Your task to perform on an android device: toggle pop-ups in chrome Image 0: 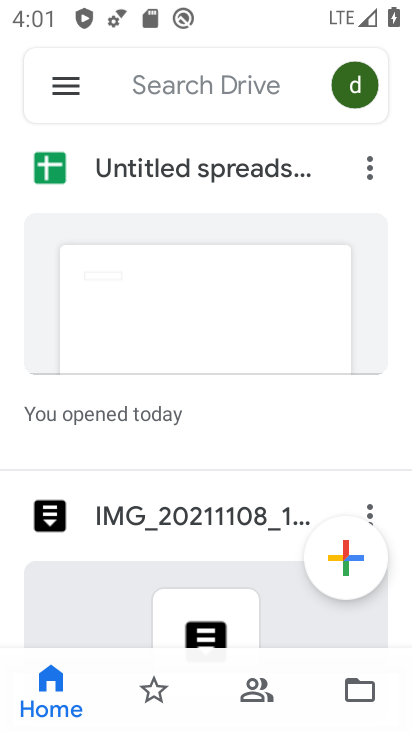
Step 0: press back button
Your task to perform on an android device: toggle pop-ups in chrome Image 1: 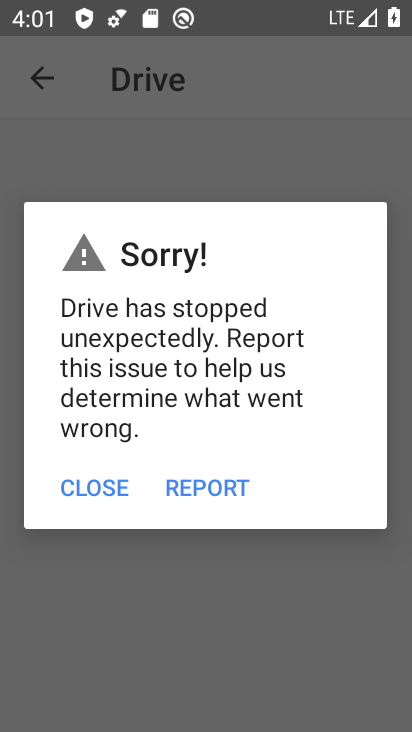
Step 1: press home button
Your task to perform on an android device: toggle pop-ups in chrome Image 2: 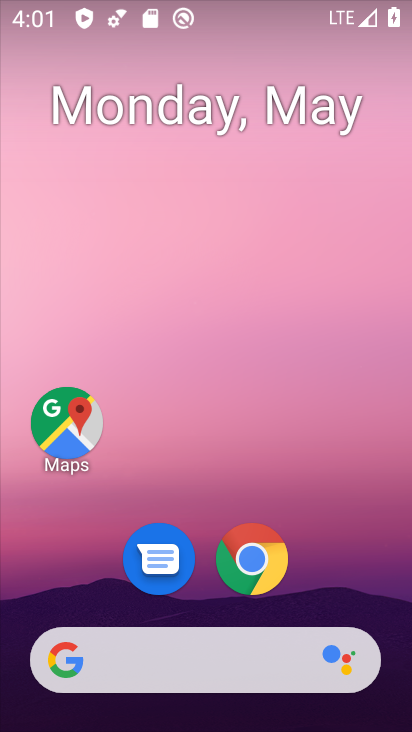
Step 2: drag from (307, 403) to (217, 26)
Your task to perform on an android device: toggle pop-ups in chrome Image 3: 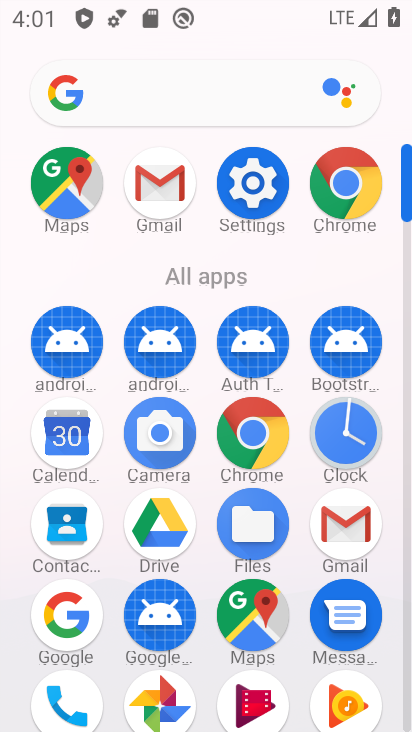
Step 3: drag from (17, 600) to (7, 238)
Your task to perform on an android device: toggle pop-ups in chrome Image 4: 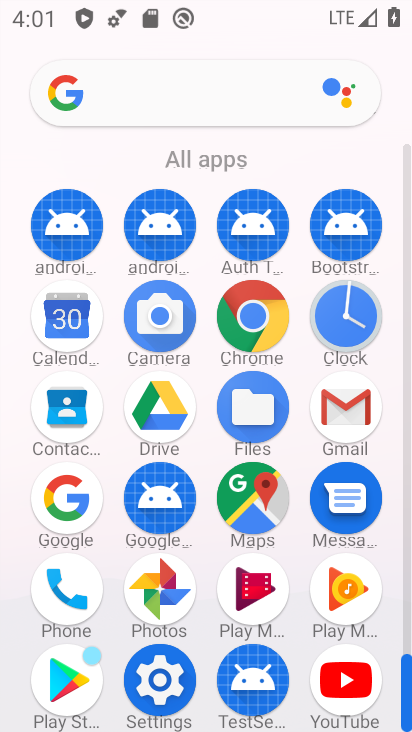
Step 4: click (248, 315)
Your task to perform on an android device: toggle pop-ups in chrome Image 5: 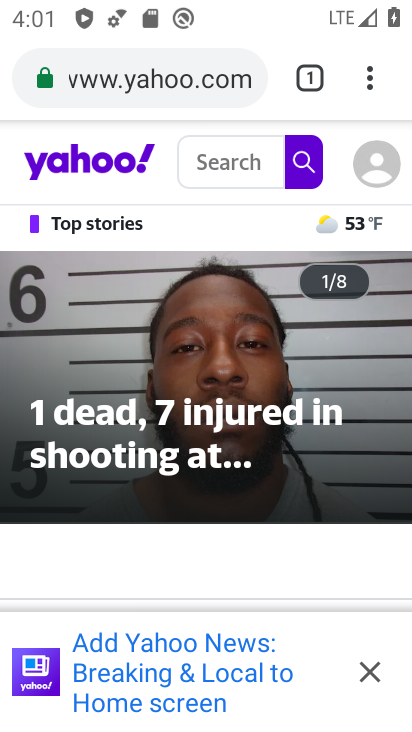
Step 5: drag from (367, 75) to (98, 612)
Your task to perform on an android device: toggle pop-ups in chrome Image 6: 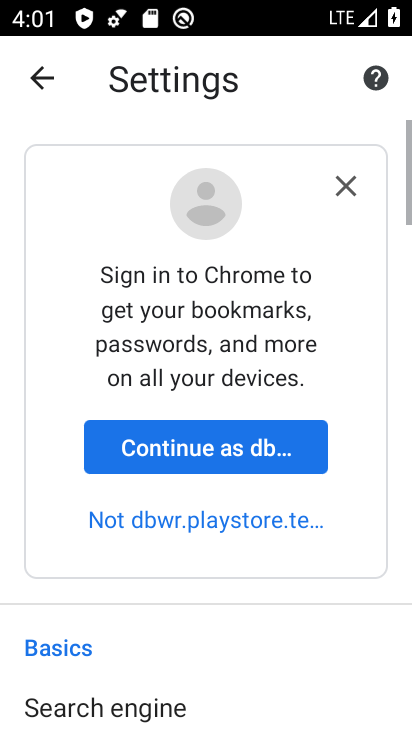
Step 6: drag from (263, 584) to (253, 134)
Your task to perform on an android device: toggle pop-ups in chrome Image 7: 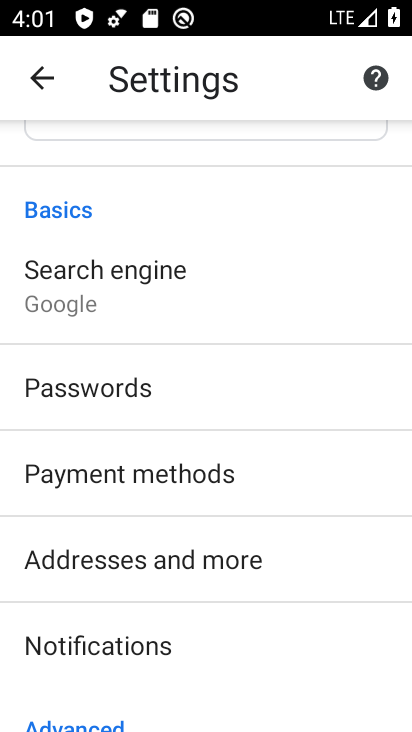
Step 7: drag from (235, 541) to (219, 130)
Your task to perform on an android device: toggle pop-ups in chrome Image 8: 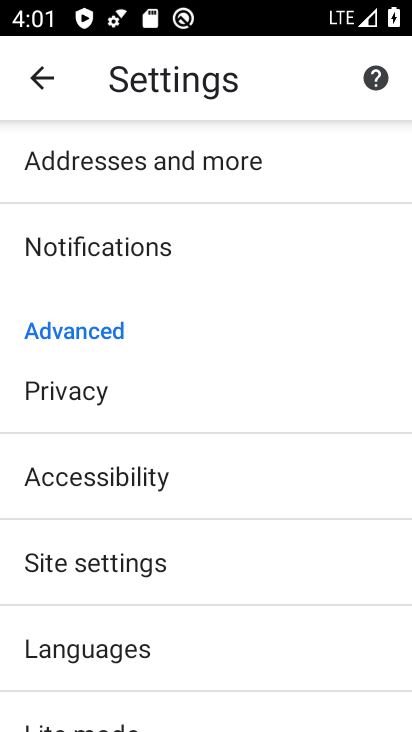
Step 8: drag from (256, 549) to (234, 149)
Your task to perform on an android device: toggle pop-ups in chrome Image 9: 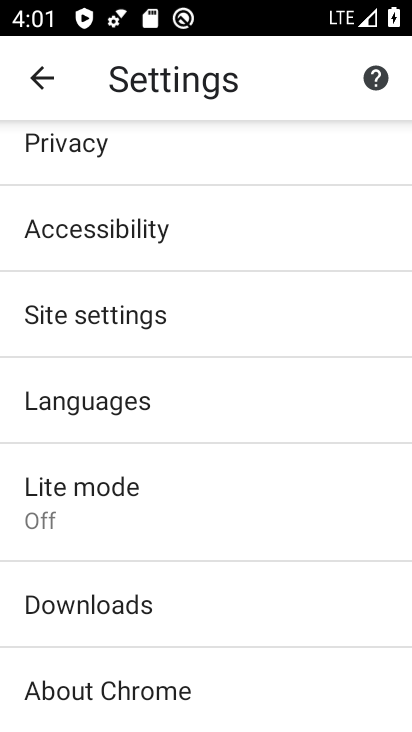
Step 9: click (98, 299)
Your task to perform on an android device: toggle pop-ups in chrome Image 10: 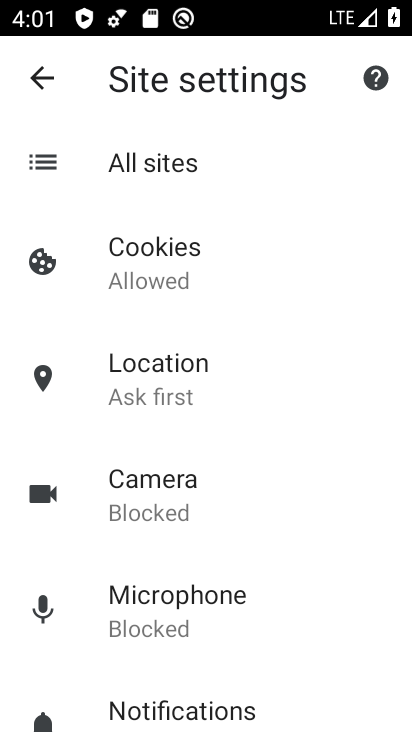
Step 10: drag from (197, 687) to (207, 227)
Your task to perform on an android device: toggle pop-ups in chrome Image 11: 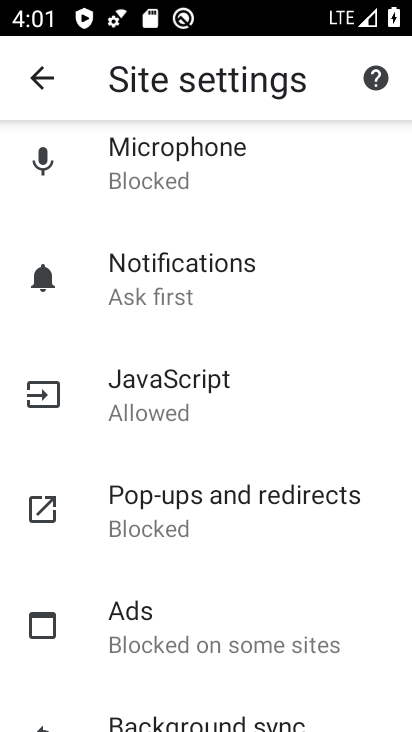
Step 11: click (178, 515)
Your task to perform on an android device: toggle pop-ups in chrome Image 12: 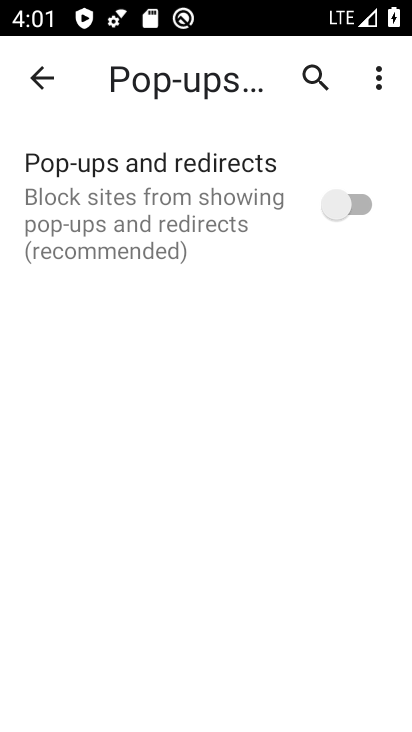
Step 12: click (340, 198)
Your task to perform on an android device: toggle pop-ups in chrome Image 13: 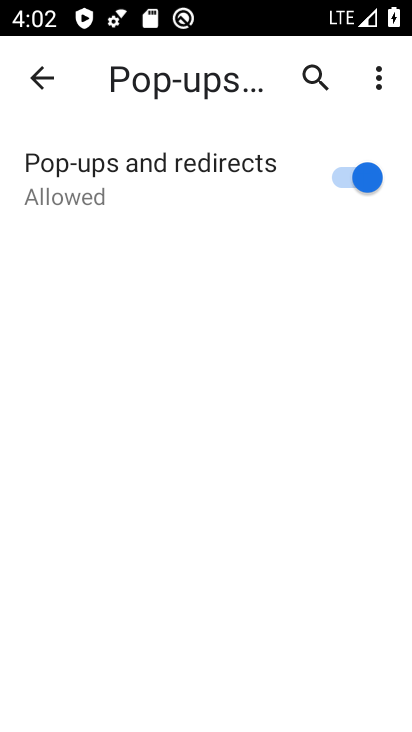
Step 13: task complete